Your task to perform on an android device: move a message to another label in the gmail app Image 0: 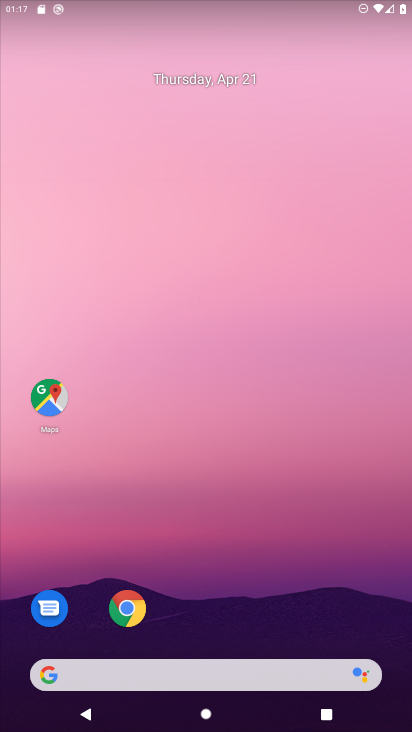
Step 0: drag from (250, 623) to (227, 58)
Your task to perform on an android device: move a message to another label in the gmail app Image 1: 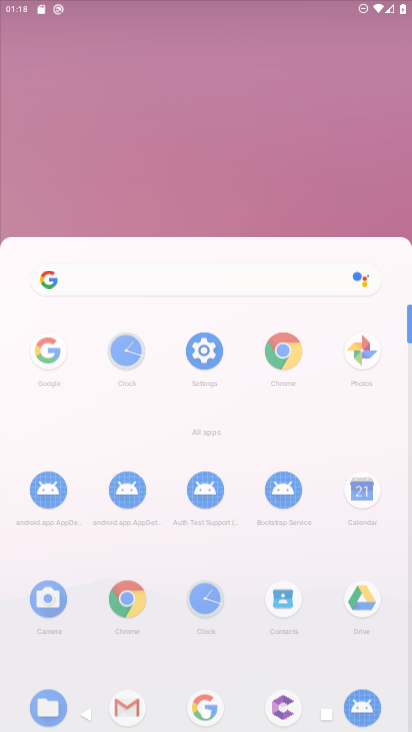
Step 1: drag from (265, 564) to (255, 197)
Your task to perform on an android device: move a message to another label in the gmail app Image 2: 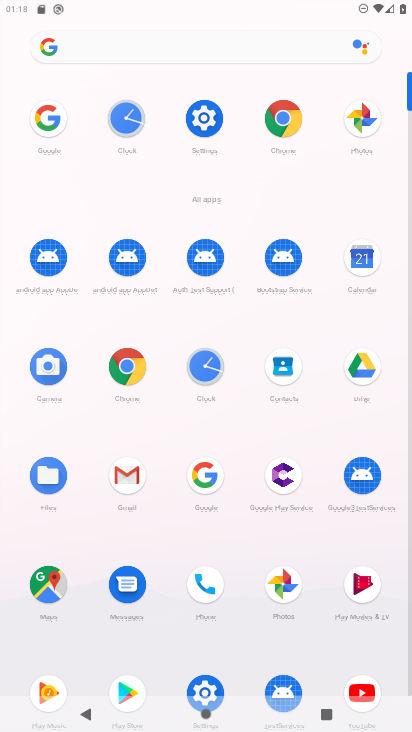
Step 2: drag from (204, 539) to (237, 197)
Your task to perform on an android device: move a message to another label in the gmail app Image 3: 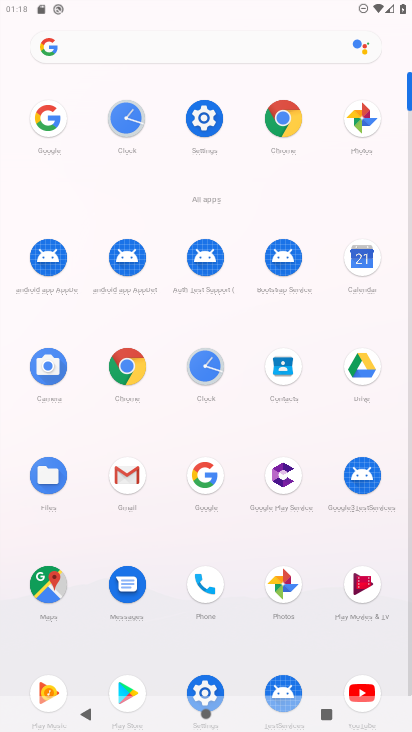
Step 3: click (123, 473)
Your task to perform on an android device: move a message to another label in the gmail app Image 4: 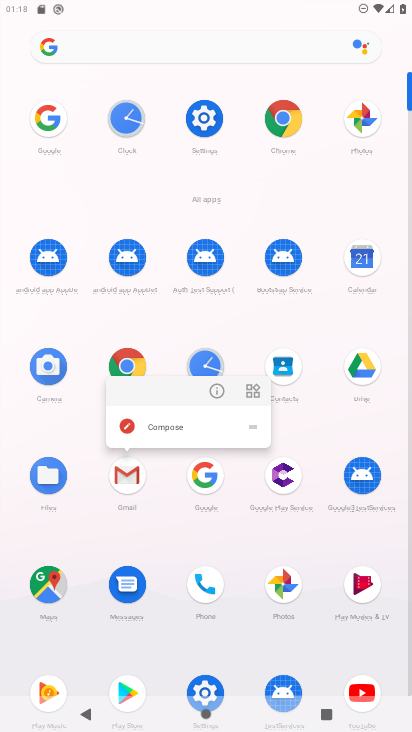
Step 4: click (133, 476)
Your task to perform on an android device: move a message to another label in the gmail app Image 5: 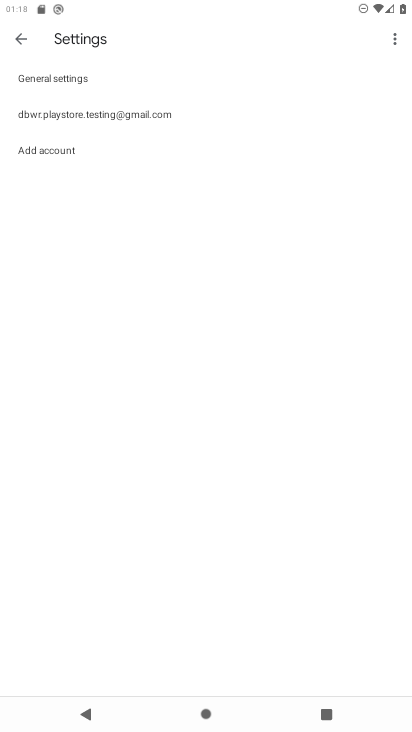
Step 5: click (133, 476)
Your task to perform on an android device: move a message to another label in the gmail app Image 6: 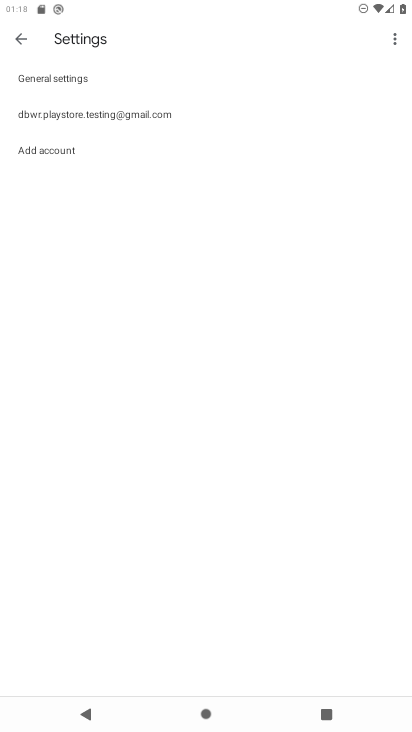
Step 6: click (181, 122)
Your task to perform on an android device: move a message to another label in the gmail app Image 7: 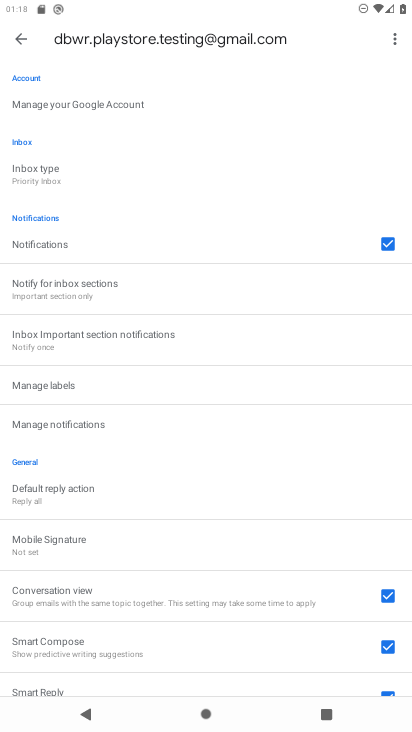
Step 7: click (21, 34)
Your task to perform on an android device: move a message to another label in the gmail app Image 8: 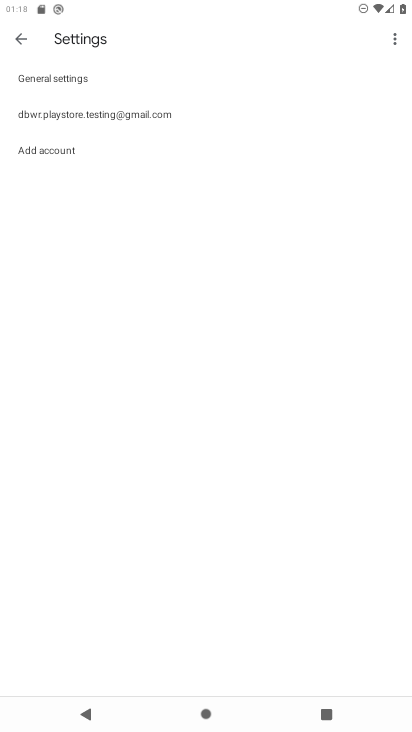
Step 8: click (21, 34)
Your task to perform on an android device: move a message to another label in the gmail app Image 9: 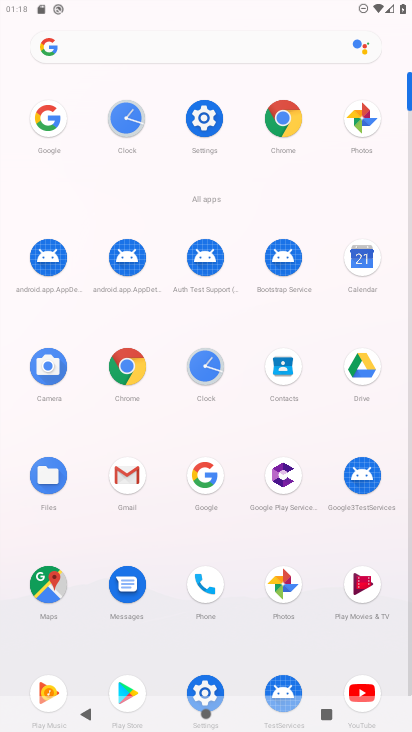
Step 9: click (133, 472)
Your task to perform on an android device: move a message to another label in the gmail app Image 10: 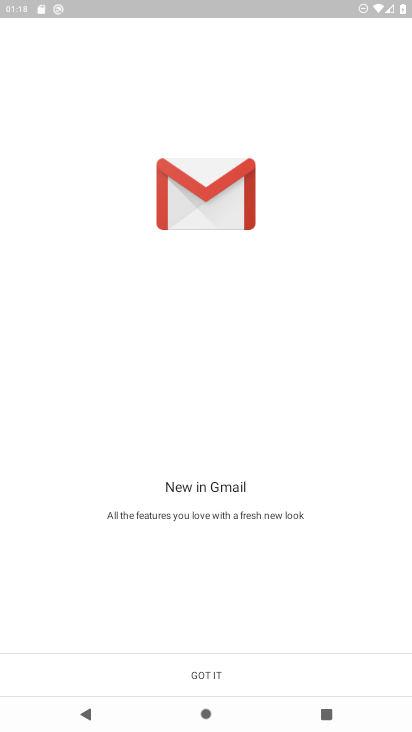
Step 10: click (204, 664)
Your task to perform on an android device: move a message to another label in the gmail app Image 11: 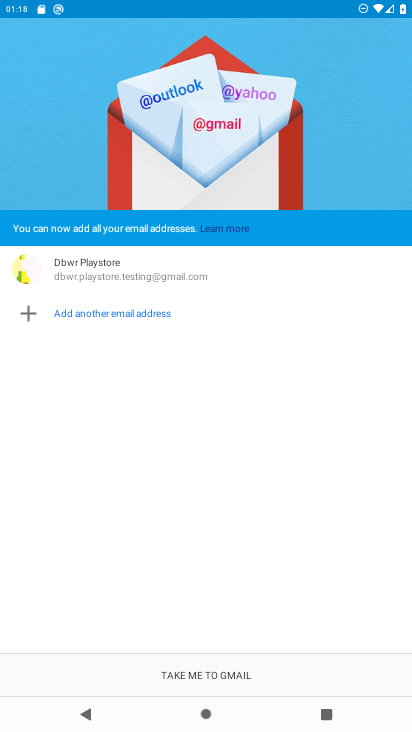
Step 11: click (204, 664)
Your task to perform on an android device: move a message to another label in the gmail app Image 12: 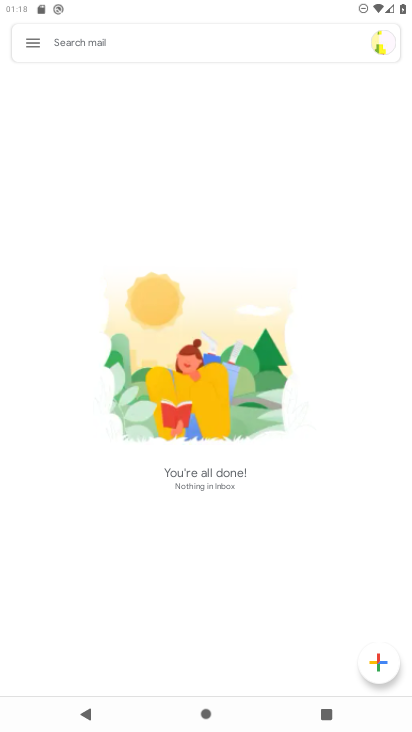
Step 12: click (32, 47)
Your task to perform on an android device: move a message to another label in the gmail app Image 13: 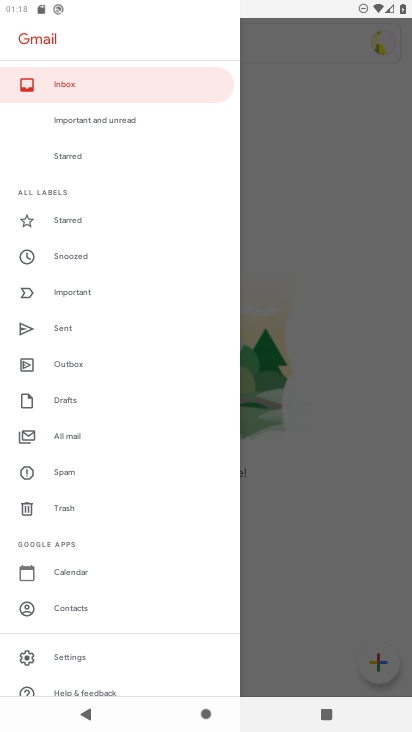
Step 13: click (93, 434)
Your task to perform on an android device: move a message to another label in the gmail app Image 14: 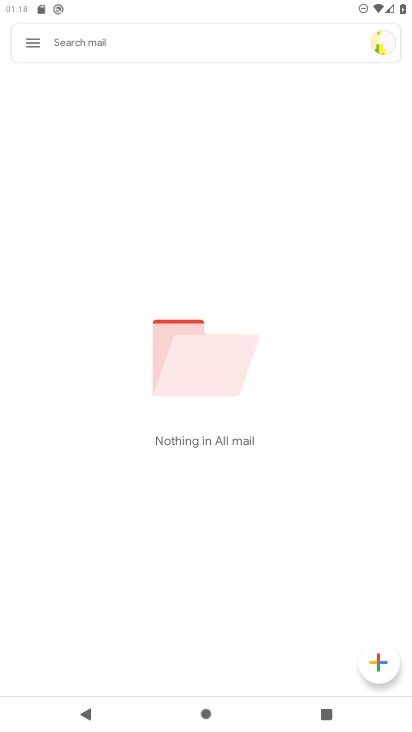
Step 14: task complete